Your task to perform on an android device: turn on notifications settings in the gmail app Image 0: 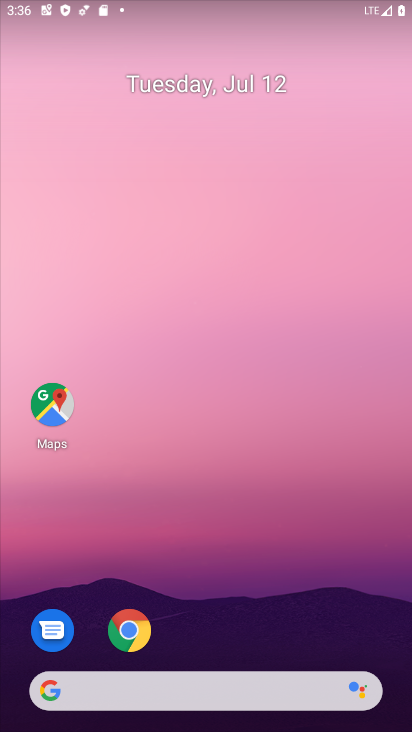
Step 0: drag from (223, 696) to (247, 59)
Your task to perform on an android device: turn on notifications settings in the gmail app Image 1: 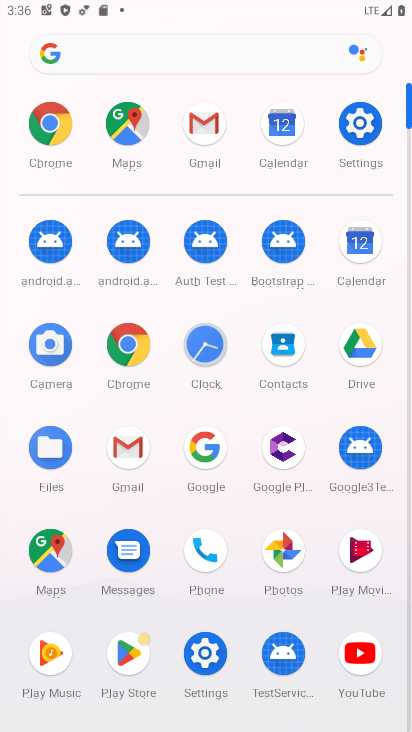
Step 1: click (113, 448)
Your task to perform on an android device: turn on notifications settings in the gmail app Image 2: 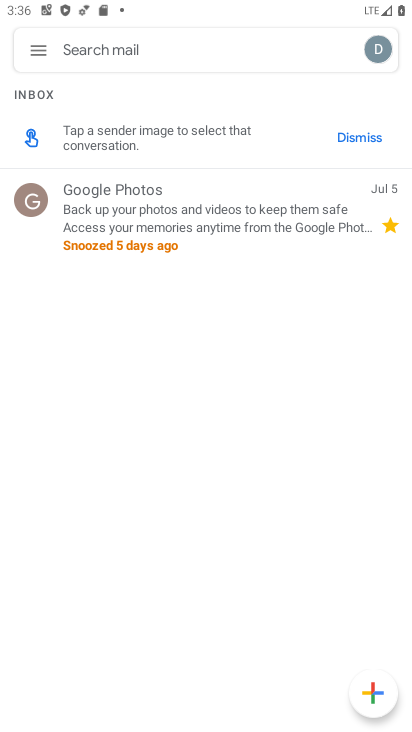
Step 2: click (36, 56)
Your task to perform on an android device: turn on notifications settings in the gmail app Image 3: 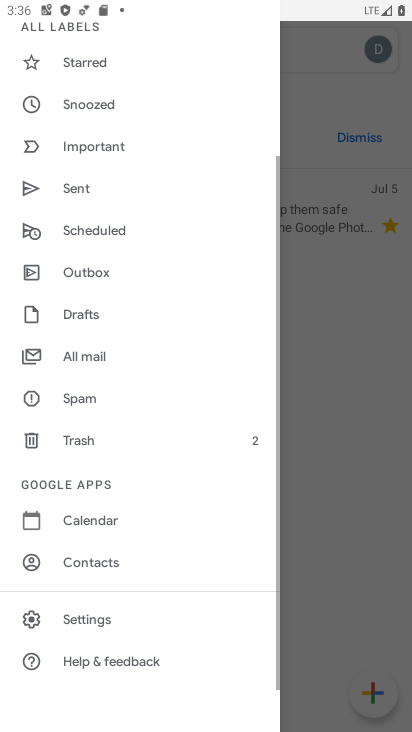
Step 3: click (130, 621)
Your task to perform on an android device: turn on notifications settings in the gmail app Image 4: 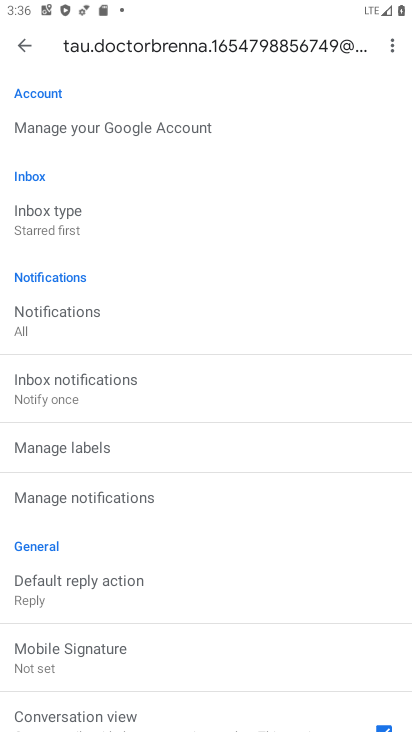
Step 4: click (137, 501)
Your task to perform on an android device: turn on notifications settings in the gmail app Image 5: 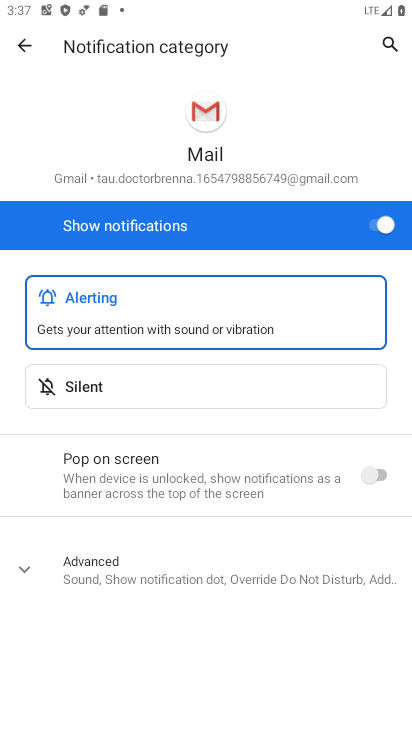
Step 5: task complete